Your task to perform on an android device: move an email to a new category in the gmail app Image 0: 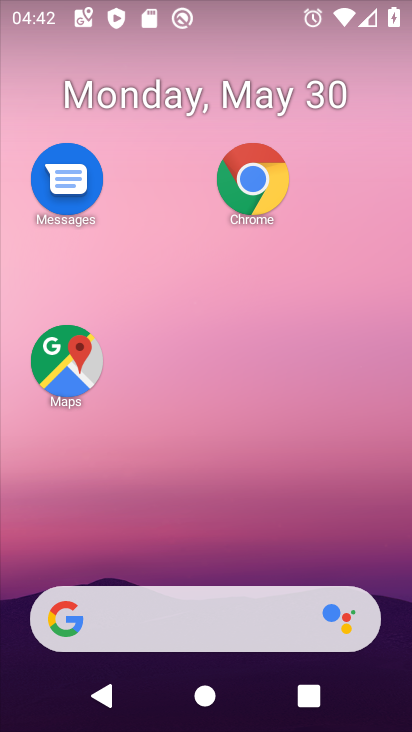
Step 0: drag from (154, 541) to (173, 11)
Your task to perform on an android device: move an email to a new category in the gmail app Image 1: 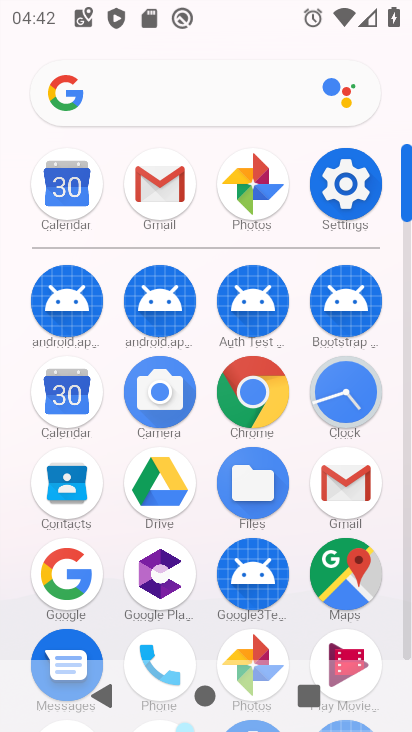
Step 1: click (144, 193)
Your task to perform on an android device: move an email to a new category in the gmail app Image 2: 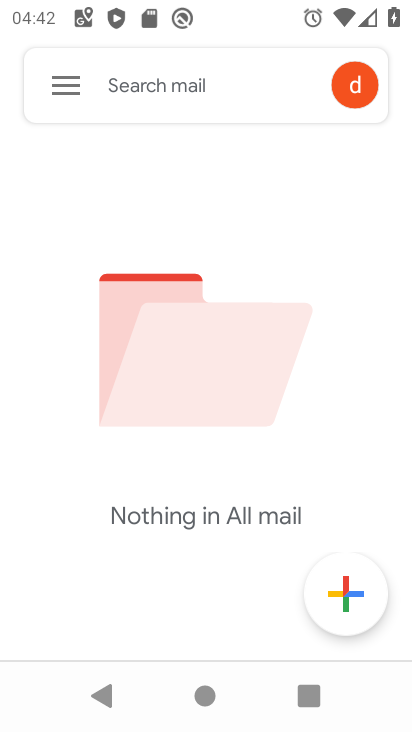
Step 2: click (60, 87)
Your task to perform on an android device: move an email to a new category in the gmail app Image 3: 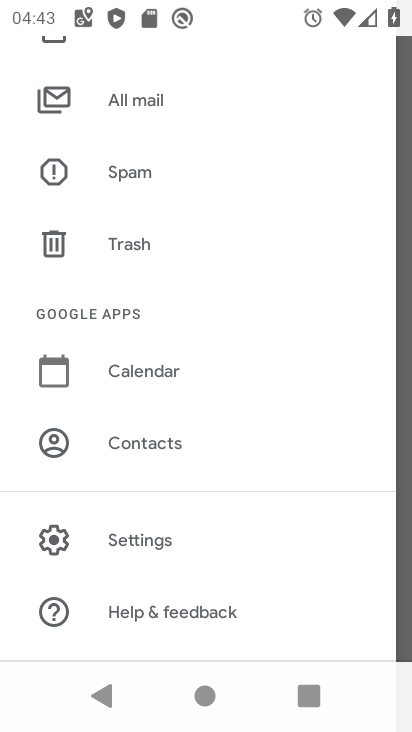
Step 3: drag from (152, 556) to (170, 200)
Your task to perform on an android device: move an email to a new category in the gmail app Image 4: 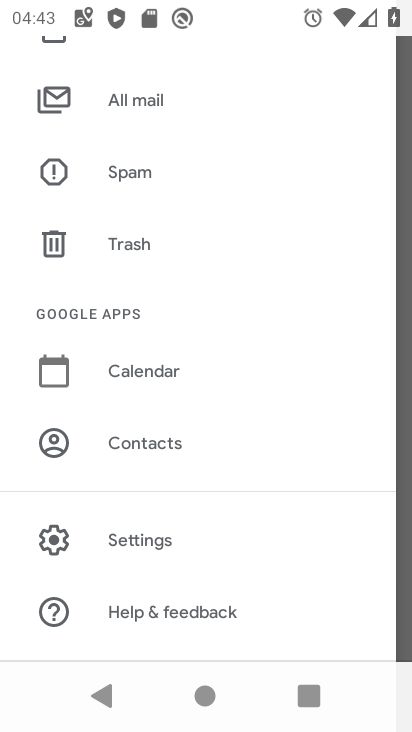
Step 4: drag from (178, 281) to (172, 710)
Your task to perform on an android device: move an email to a new category in the gmail app Image 5: 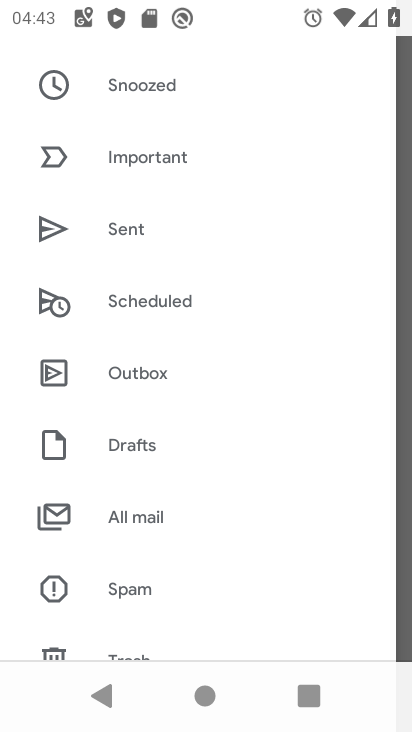
Step 5: drag from (143, 554) to (157, 116)
Your task to perform on an android device: move an email to a new category in the gmail app Image 6: 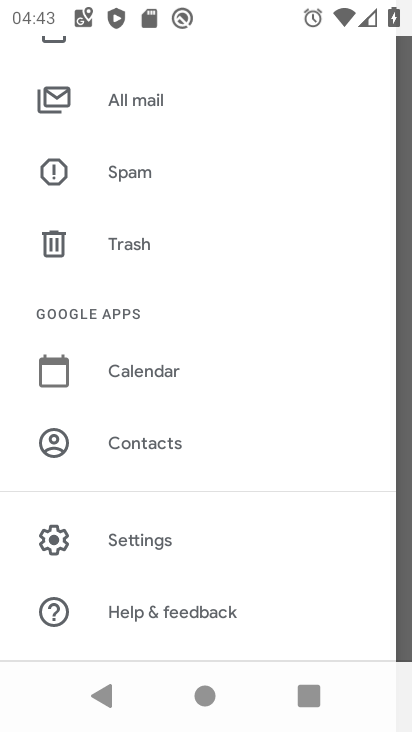
Step 6: drag from (211, 428) to (211, 475)
Your task to perform on an android device: move an email to a new category in the gmail app Image 7: 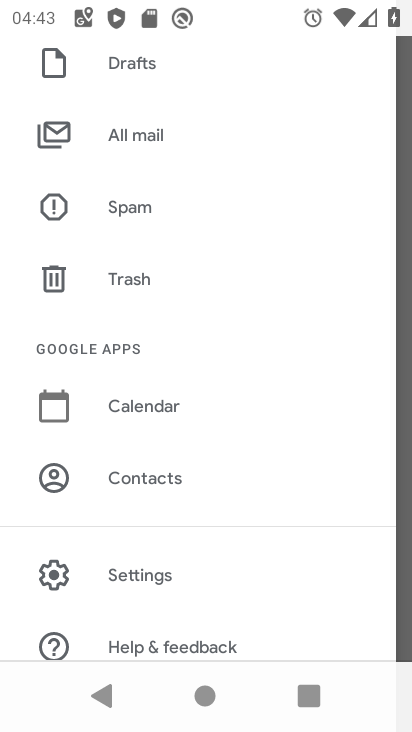
Step 7: click (131, 129)
Your task to perform on an android device: move an email to a new category in the gmail app Image 8: 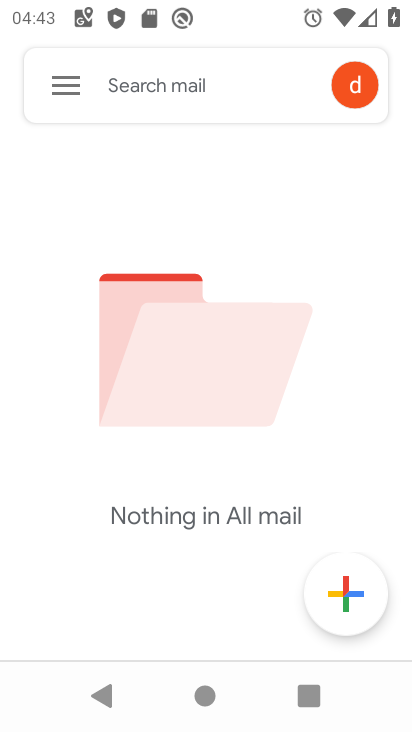
Step 8: task complete